Your task to perform on an android device: open wifi settings Image 0: 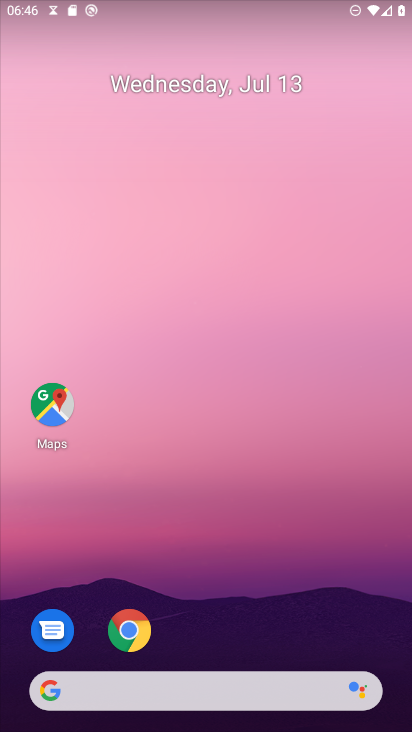
Step 0: drag from (336, 593) to (292, 9)
Your task to perform on an android device: open wifi settings Image 1: 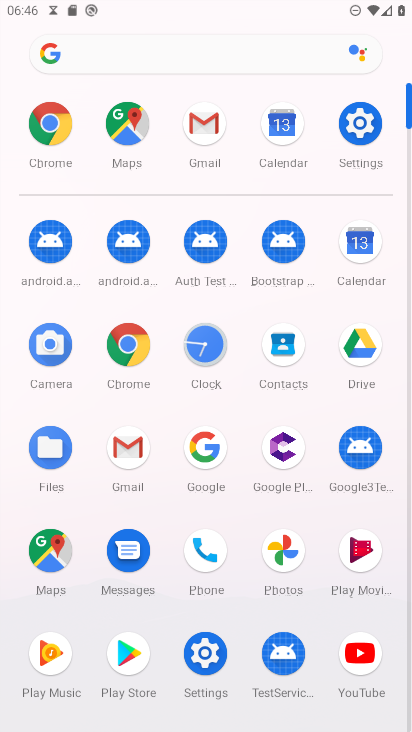
Step 1: click (353, 112)
Your task to perform on an android device: open wifi settings Image 2: 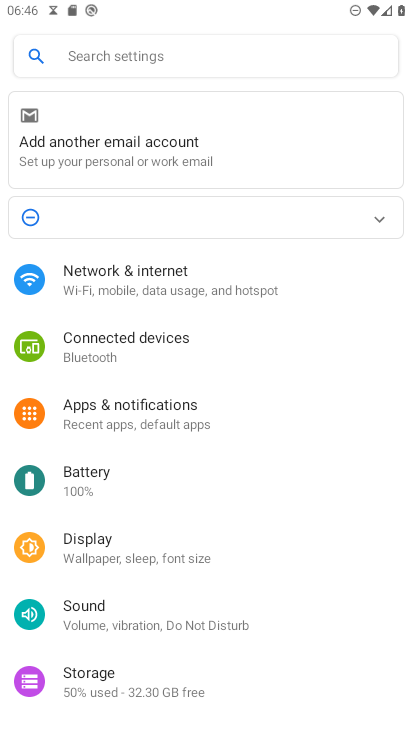
Step 2: click (174, 287)
Your task to perform on an android device: open wifi settings Image 3: 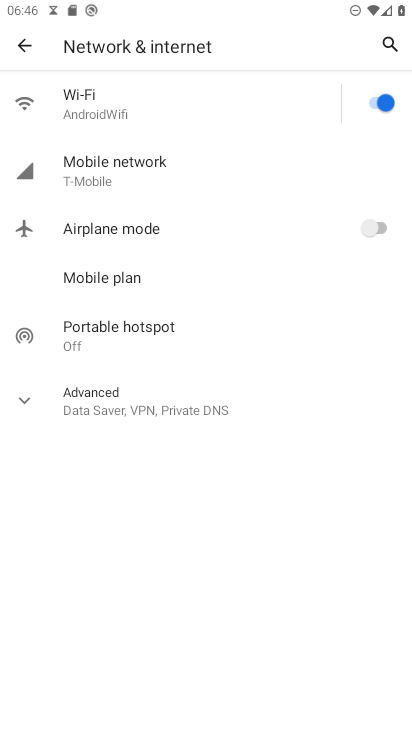
Step 3: click (150, 108)
Your task to perform on an android device: open wifi settings Image 4: 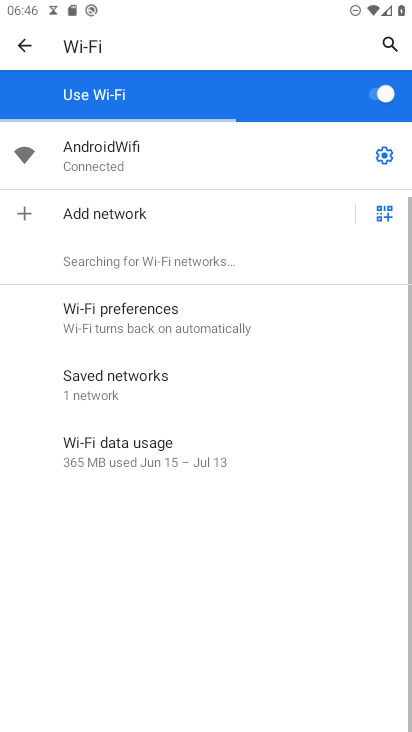
Step 4: task complete